Your task to perform on an android device: What's the weather going to be tomorrow? Image 0: 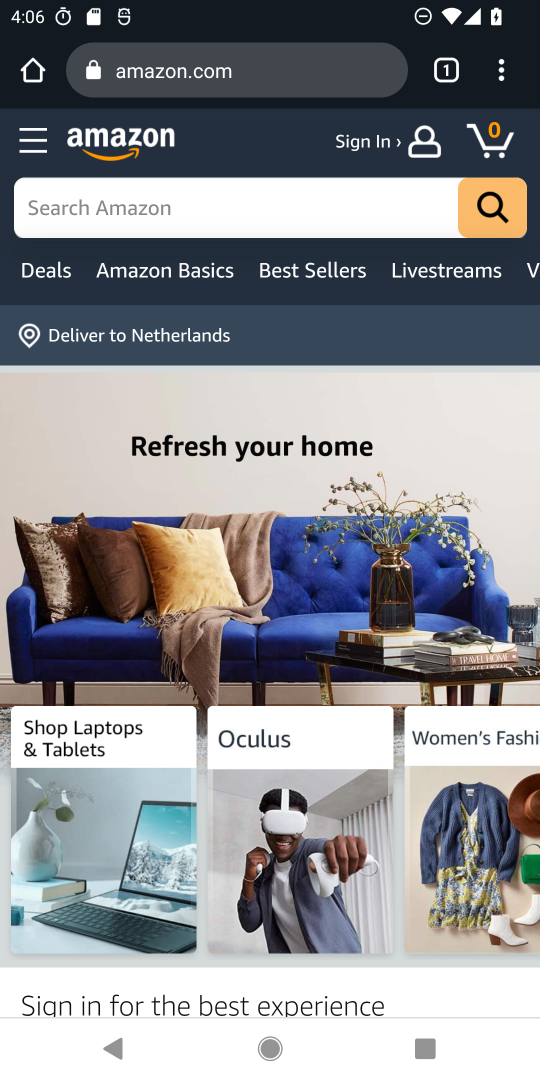
Step 0: click (182, 72)
Your task to perform on an android device: What's the weather going to be tomorrow? Image 1: 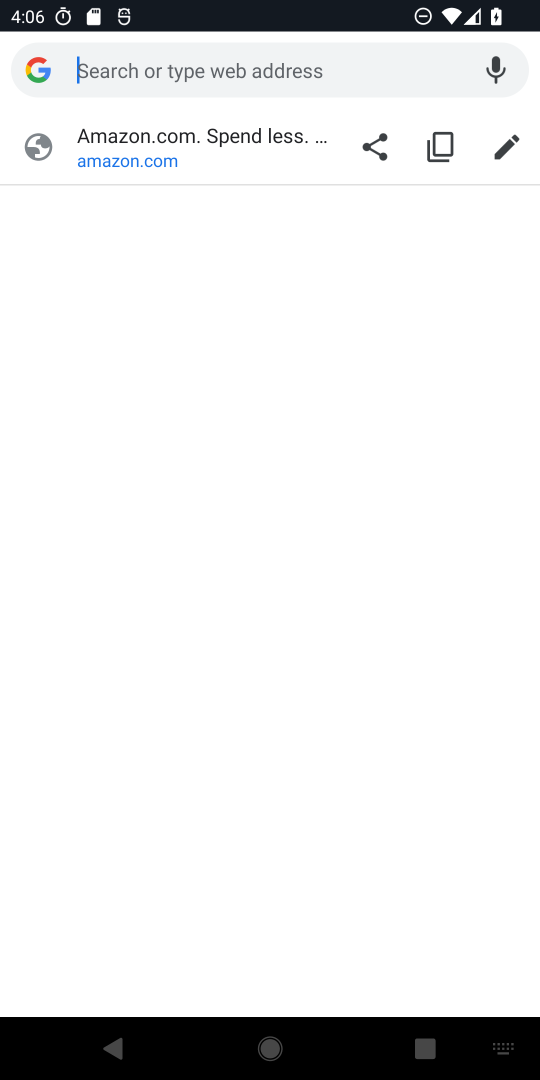
Step 1: type "What's the weather going to be tomorrow?"
Your task to perform on an android device: What's the weather going to be tomorrow? Image 2: 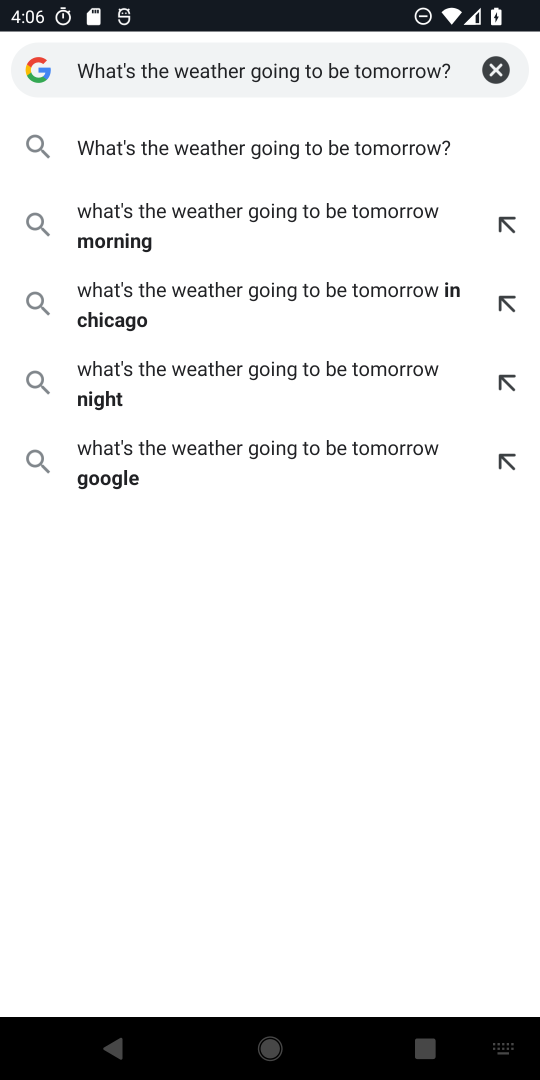
Step 2: click (302, 148)
Your task to perform on an android device: What's the weather going to be tomorrow? Image 3: 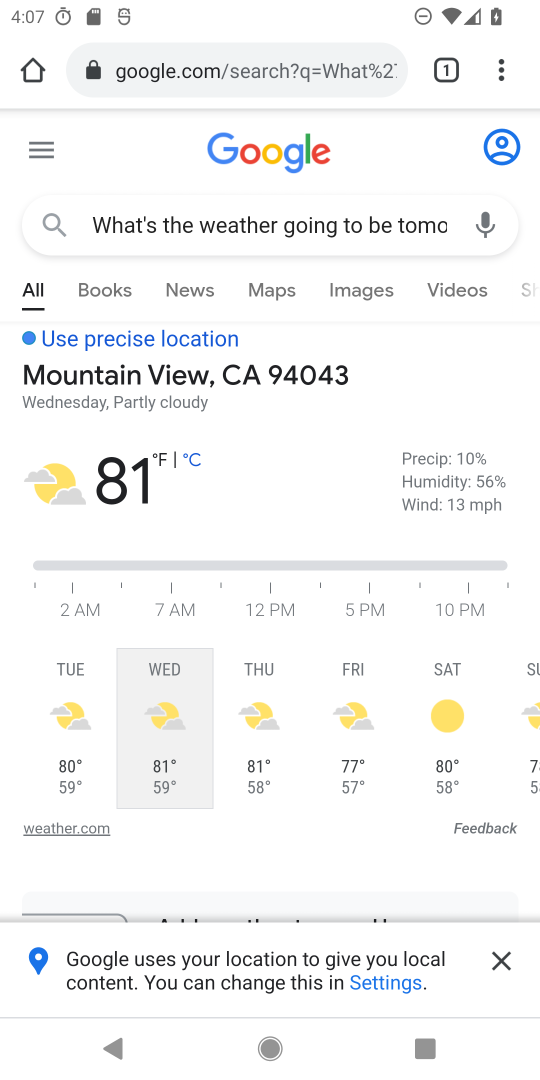
Step 3: task complete